Your task to perform on an android device: open wifi settings Image 0: 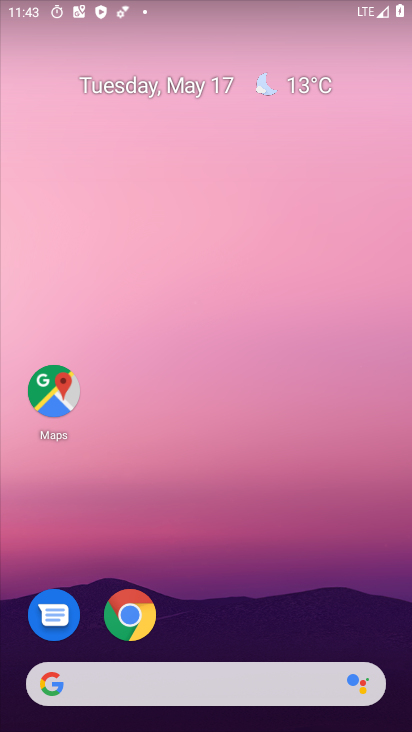
Step 0: press home button
Your task to perform on an android device: open wifi settings Image 1: 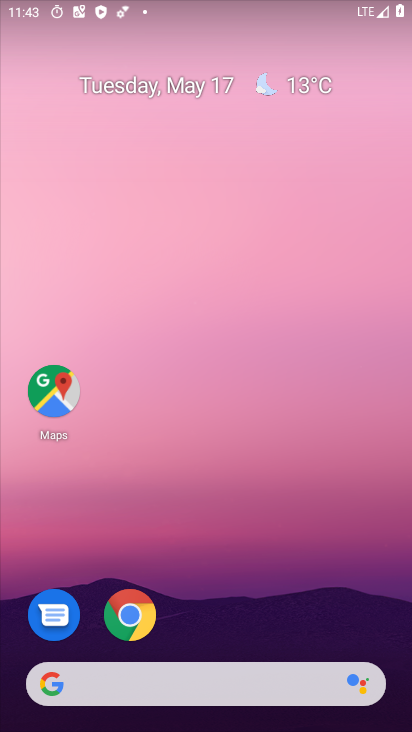
Step 1: drag from (154, 683) to (244, 214)
Your task to perform on an android device: open wifi settings Image 2: 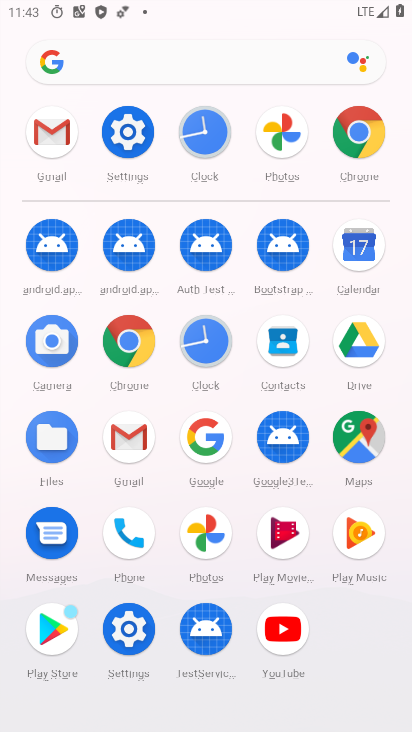
Step 2: click (131, 144)
Your task to perform on an android device: open wifi settings Image 3: 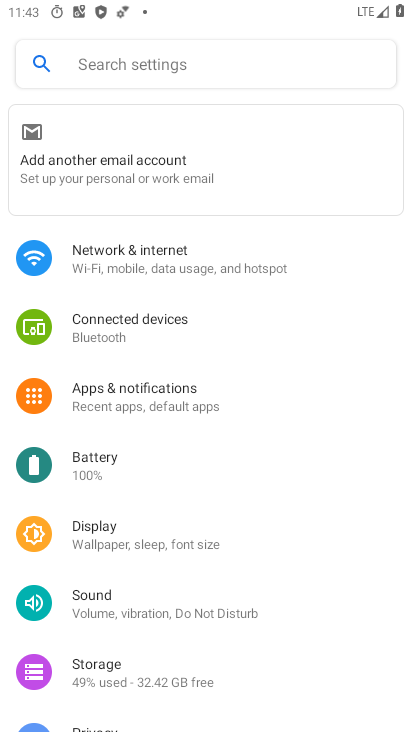
Step 3: click (151, 249)
Your task to perform on an android device: open wifi settings Image 4: 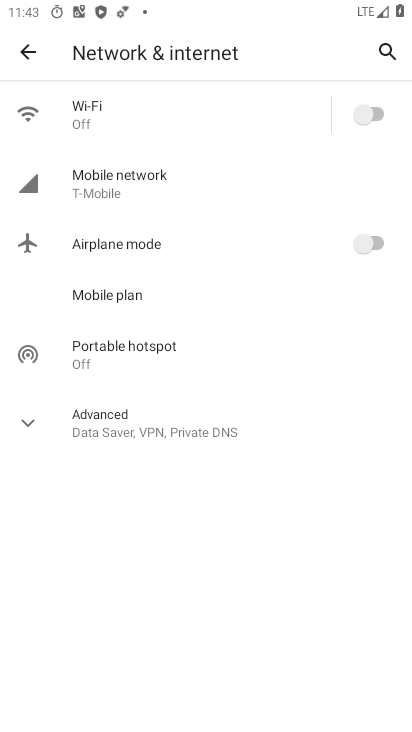
Step 4: click (112, 124)
Your task to perform on an android device: open wifi settings Image 5: 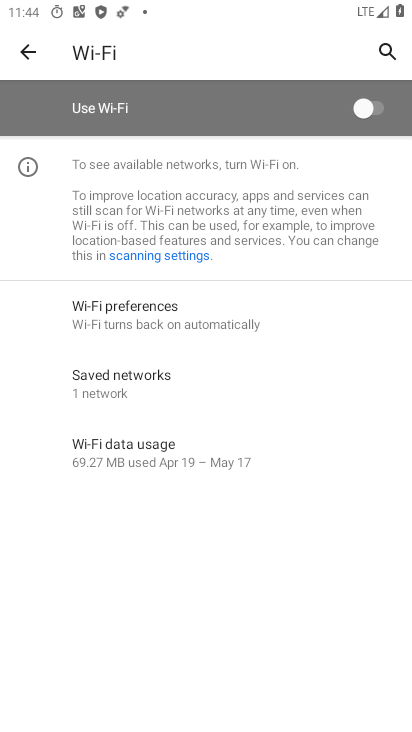
Step 5: task complete